Your task to perform on an android device: turn on wifi Image 0: 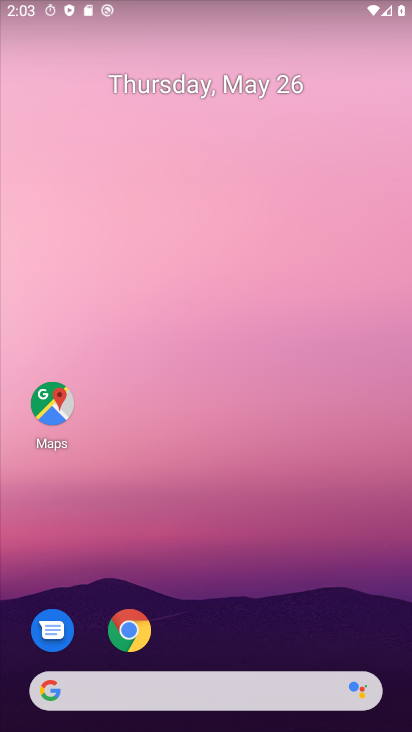
Step 0: drag from (332, 482) to (294, 147)
Your task to perform on an android device: turn on wifi Image 1: 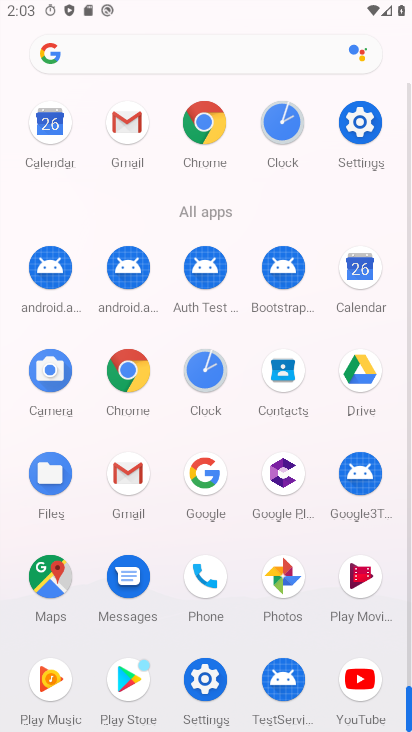
Step 1: click (362, 117)
Your task to perform on an android device: turn on wifi Image 2: 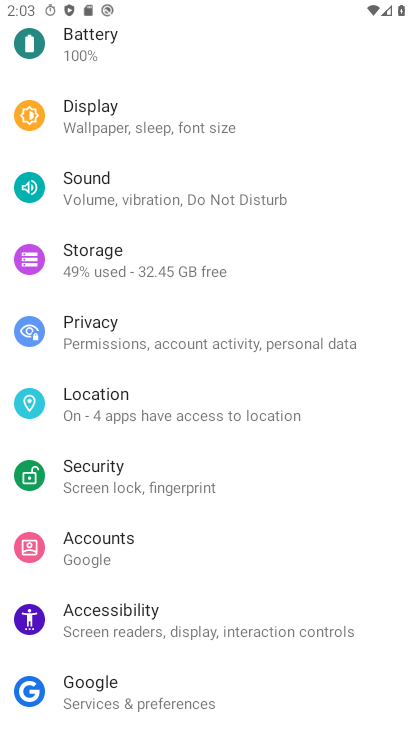
Step 2: drag from (233, 122) to (232, 538)
Your task to perform on an android device: turn on wifi Image 3: 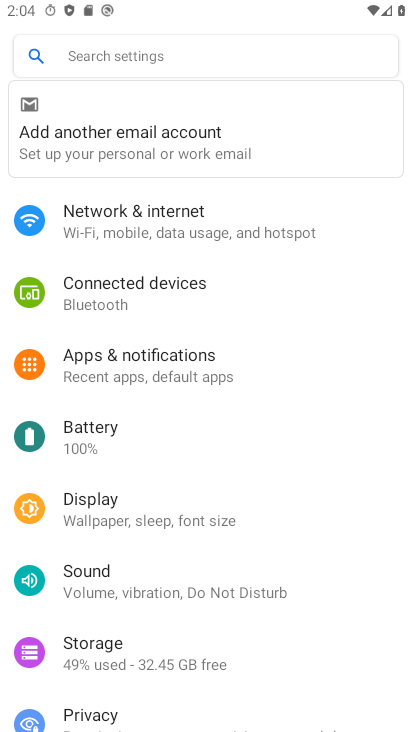
Step 3: click (176, 239)
Your task to perform on an android device: turn on wifi Image 4: 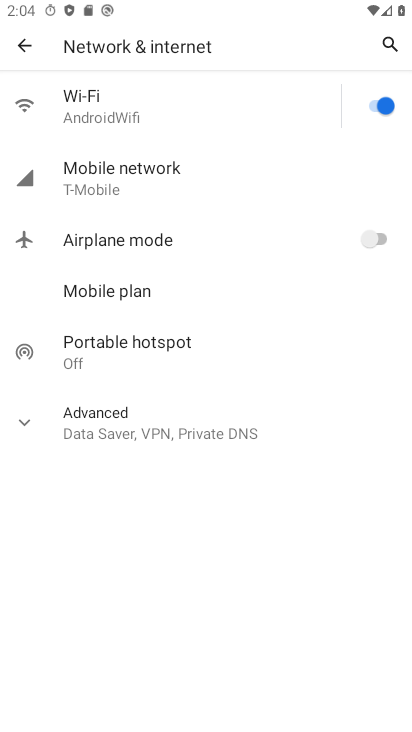
Step 4: task complete